Your task to perform on an android device: make emails show in primary in the gmail app Image 0: 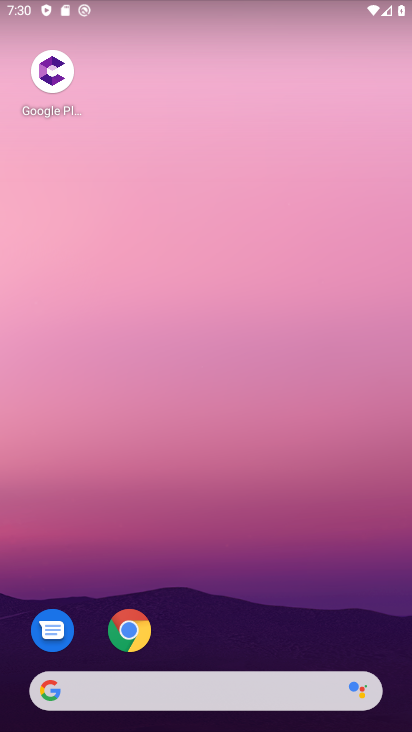
Step 0: drag from (278, 622) to (266, 61)
Your task to perform on an android device: make emails show in primary in the gmail app Image 1: 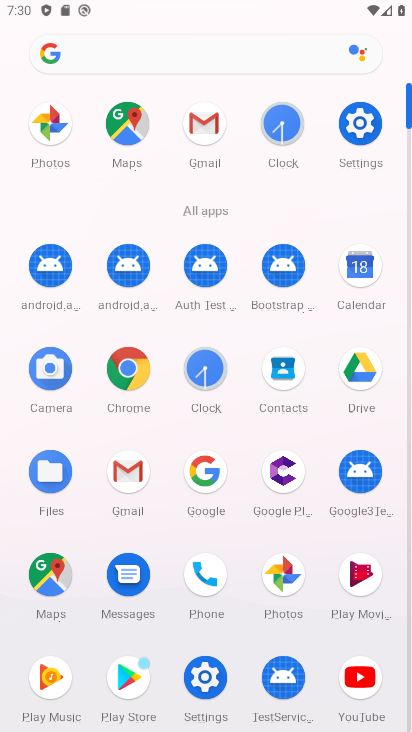
Step 1: click (210, 129)
Your task to perform on an android device: make emails show in primary in the gmail app Image 2: 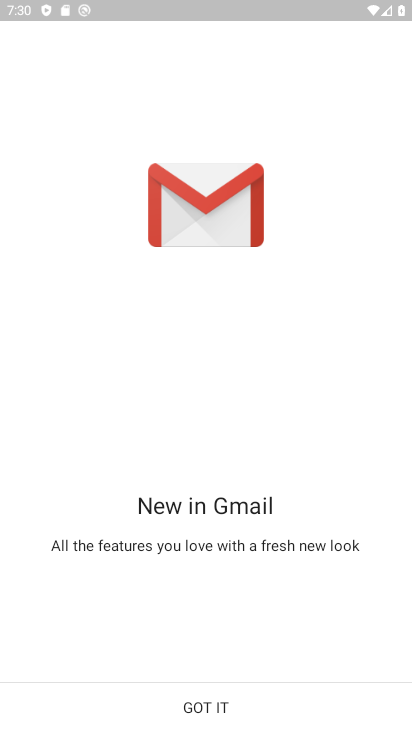
Step 2: click (180, 710)
Your task to perform on an android device: make emails show in primary in the gmail app Image 3: 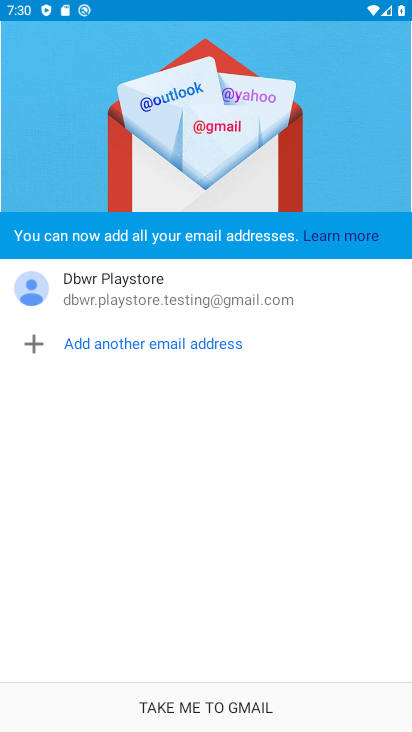
Step 3: click (180, 708)
Your task to perform on an android device: make emails show in primary in the gmail app Image 4: 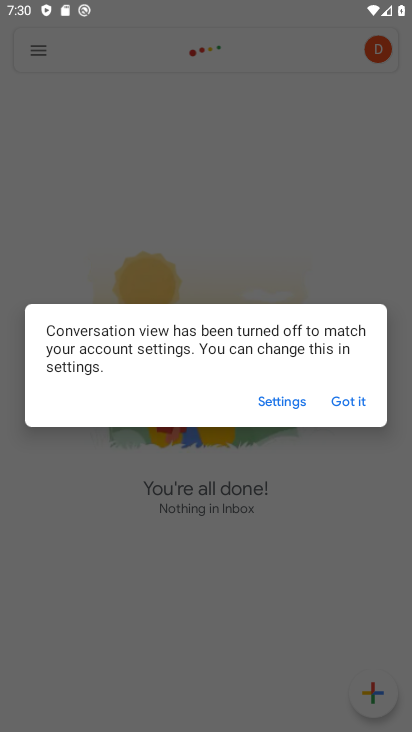
Step 4: click (353, 404)
Your task to perform on an android device: make emails show in primary in the gmail app Image 5: 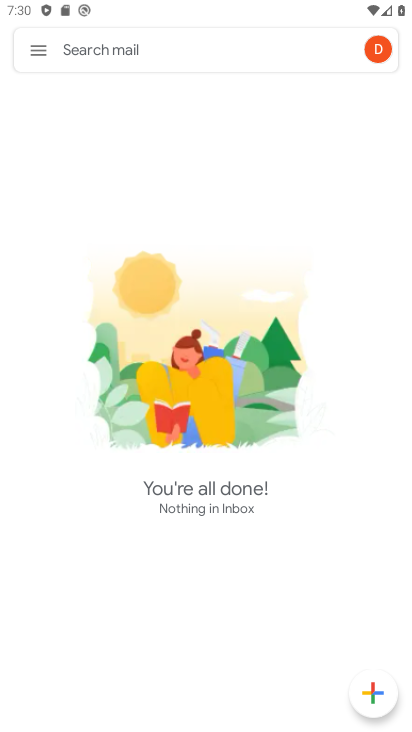
Step 5: click (42, 50)
Your task to perform on an android device: make emails show in primary in the gmail app Image 6: 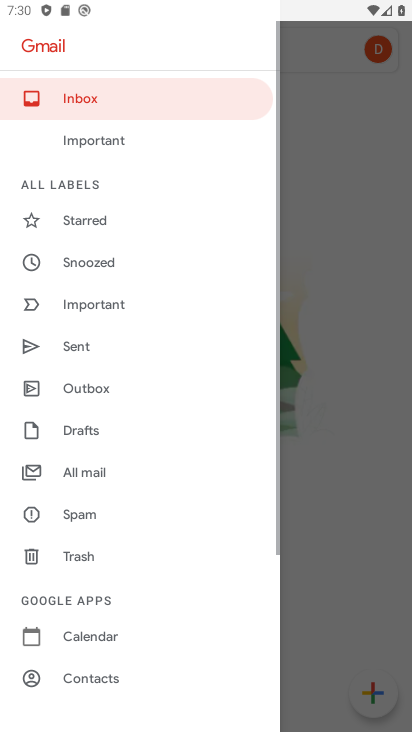
Step 6: drag from (105, 554) to (162, 148)
Your task to perform on an android device: make emails show in primary in the gmail app Image 7: 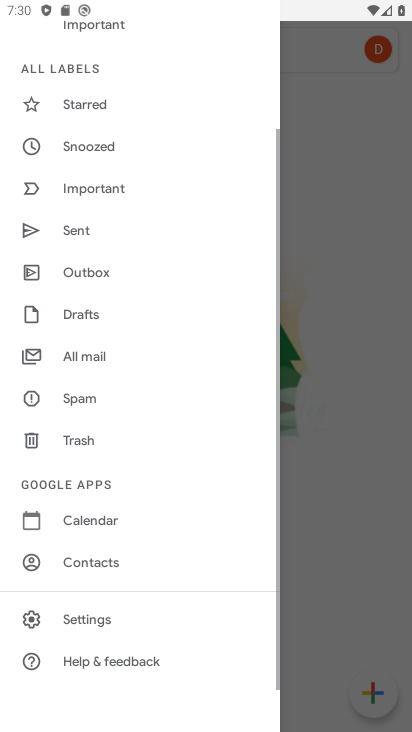
Step 7: click (90, 615)
Your task to perform on an android device: make emails show in primary in the gmail app Image 8: 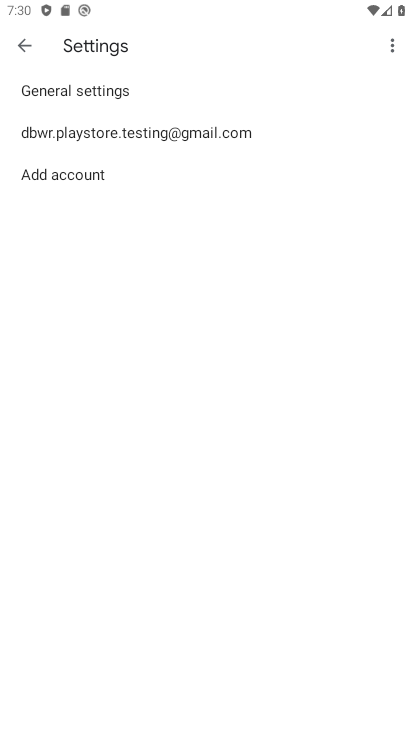
Step 8: click (107, 131)
Your task to perform on an android device: make emails show in primary in the gmail app Image 9: 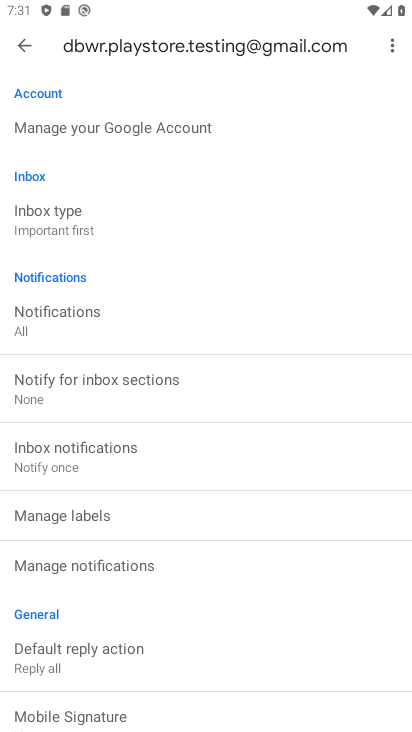
Step 9: drag from (135, 215) to (96, 567)
Your task to perform on an android device: make emails show in primary in the gmail app Image 10: 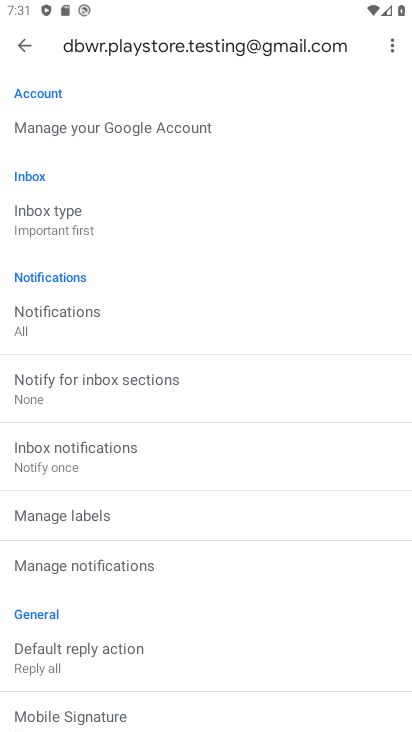
Step 10: click (74, 213)
Your task to perform on an android device: make emails show in primary in the gmail app Image 11: 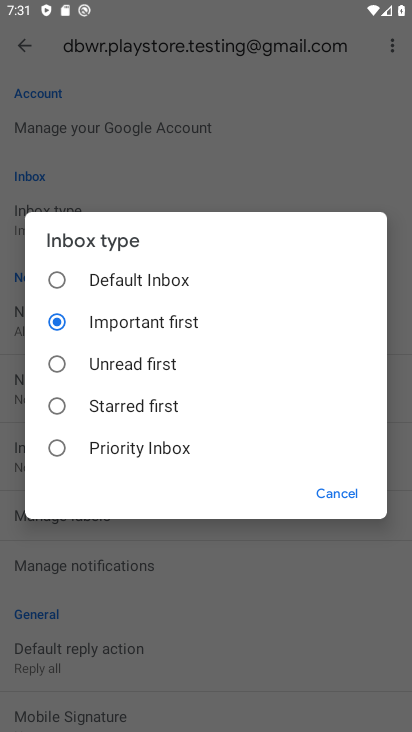
Step 11: click (90, 293)
Your task to perform on an android device: make emails show in primary in the gmail app Image 12: 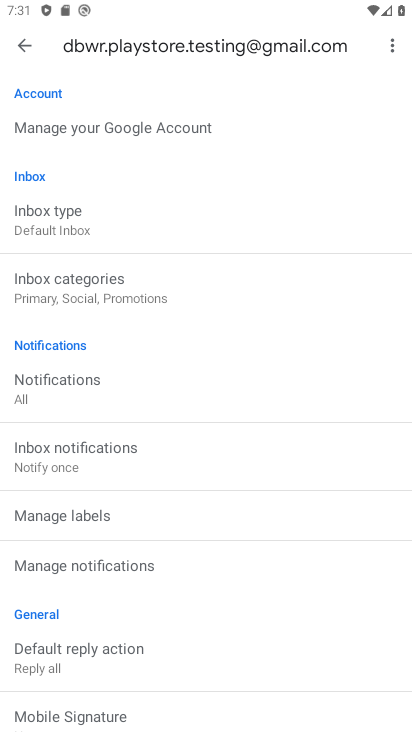
Step 12: task complete